Your task to perform on an android device: see creations saved in the google photos Image 0: 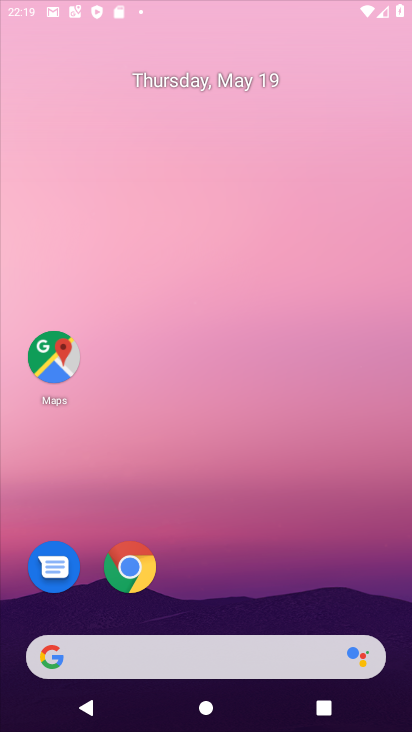
Step 0: press home button
Your task to perform on an android device: see creations saved in the google photos Image 1: 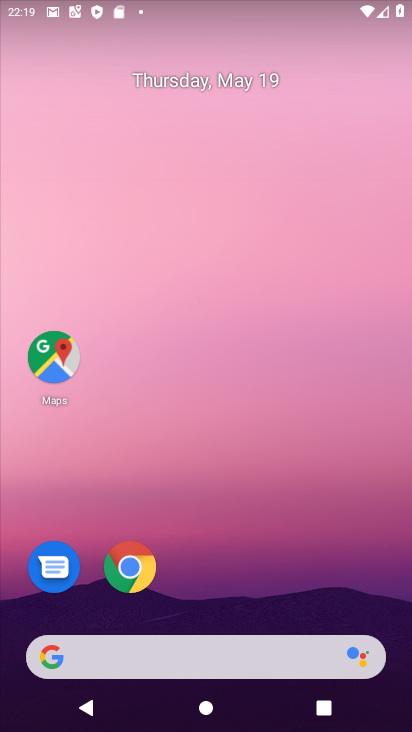
Step 1: drag from (206, 611) to (274, 3)
Your task to perform on an android device: see creations saved in the google photos Image 2: 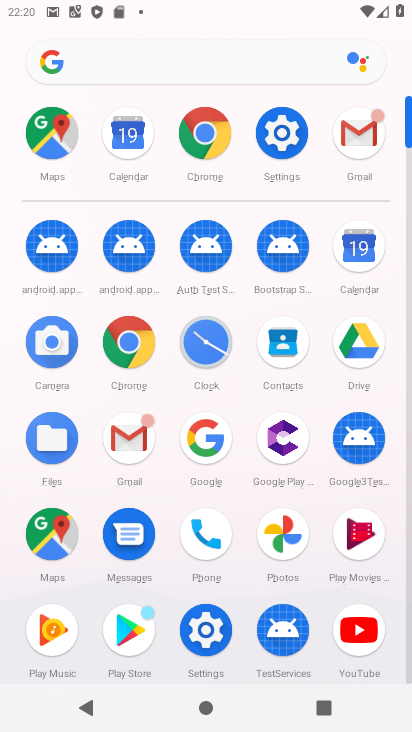
Step 2: click (276, 527)
Your task to perform on an android device: see creations saved in the google photos Image 3: 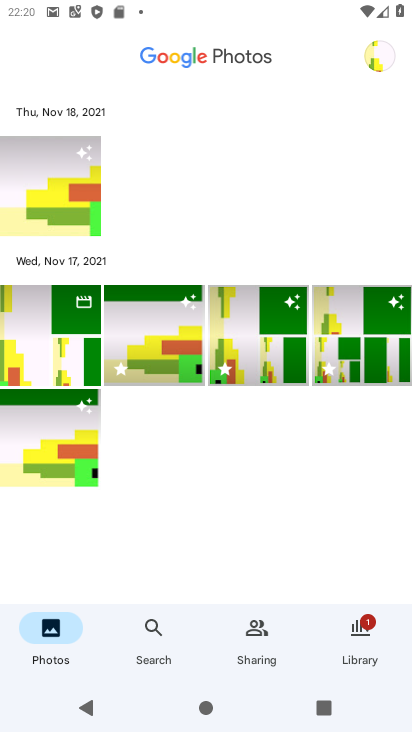
Step 3: click (143, 632)
Your task to perform on an android device: see creations saved in the google photos Image 4: 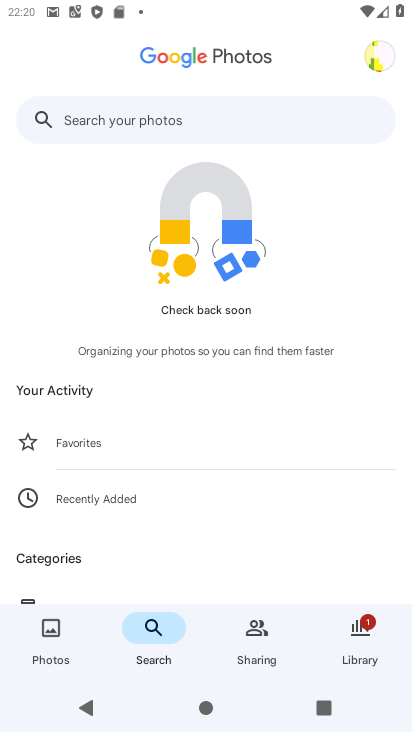
Step 4: drag from (186, 551) to (257, 77)
Your task to perform on an android device: see creations saved in the google photos Image 5: 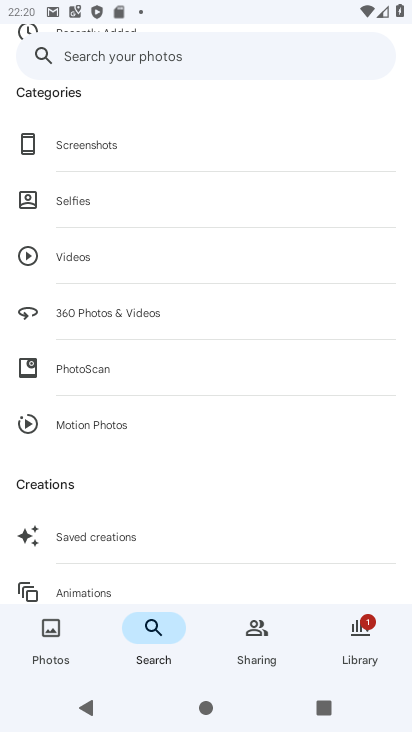
Step 5: click (143, 540)
Your task to perform on an android device: see creations saved in the google photos Image 6: 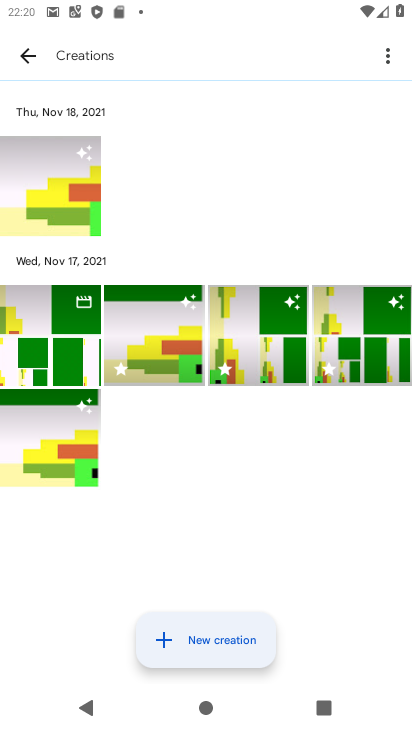
Step 6: task complete